Your task to perform on an android device: Go to privacy settings Image 0: 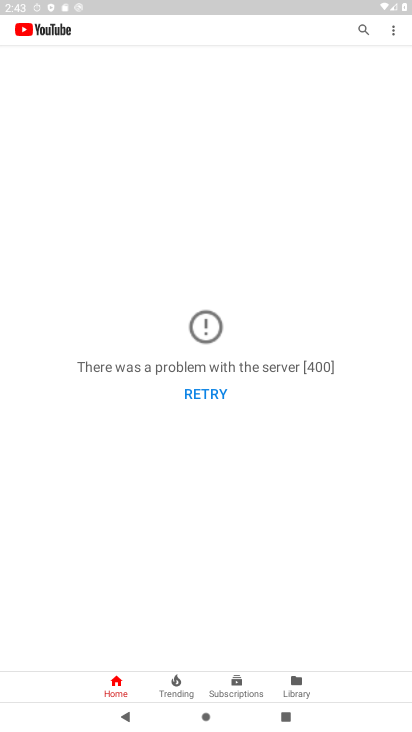
Step 0: press home button
Your task to perform on an android device: Go to privacy settings Image 1: 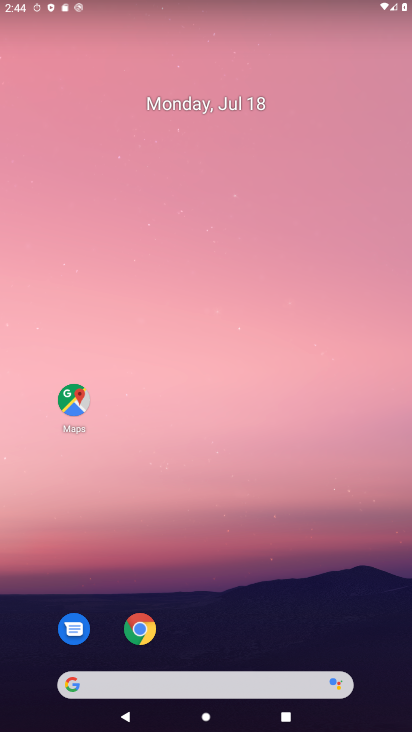
Step 1: drag from (200, 608) to (211, 230)
Your task to perform on an android device: Go to privacy settings Image 2: 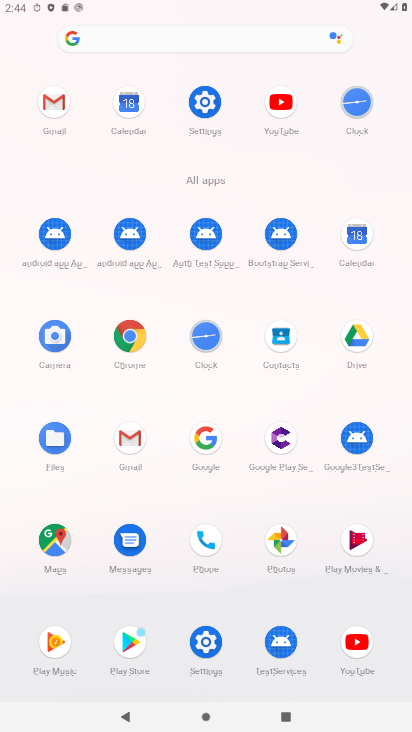
Step 2: click (199, 649)
Your task to perform on an android device: Go to privacy settings Image 3: 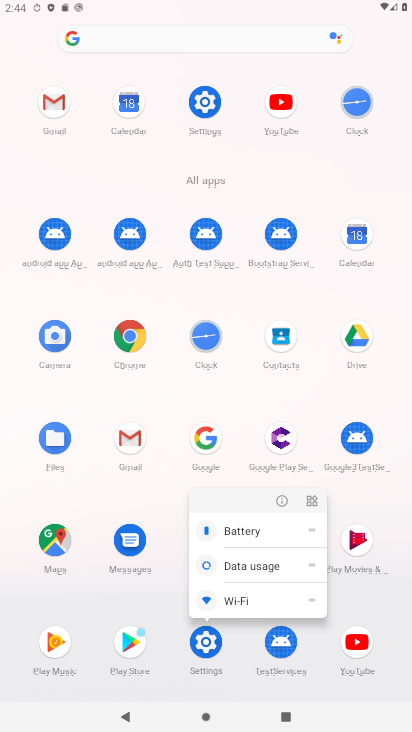
Step 3: click (198, 666)
Your task to perform on an android device: Go to privacy settings Image 4: 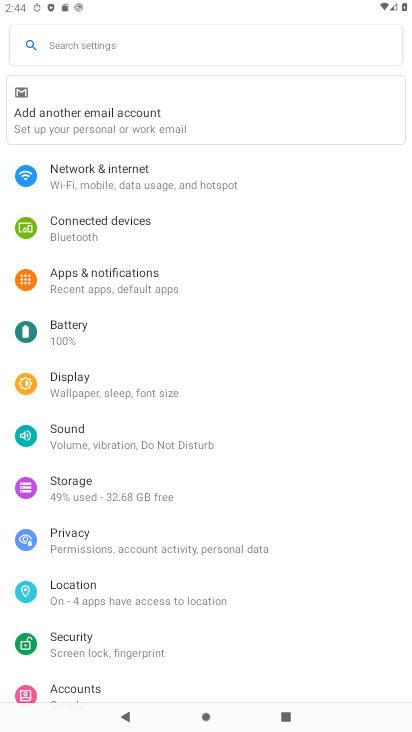
Step 4: click (110, 542)
Your task to perform on an android device: Go to privacy settings Image 5: 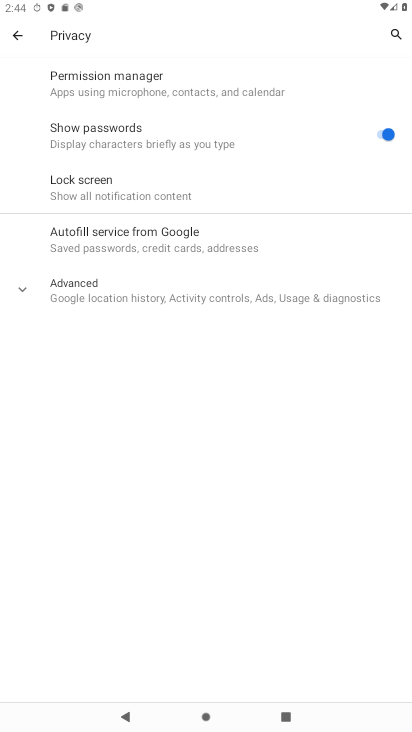
Step 5: task complete